Your task to perform on an android device: Empty the shopping cart on ebay.com. Image 0: 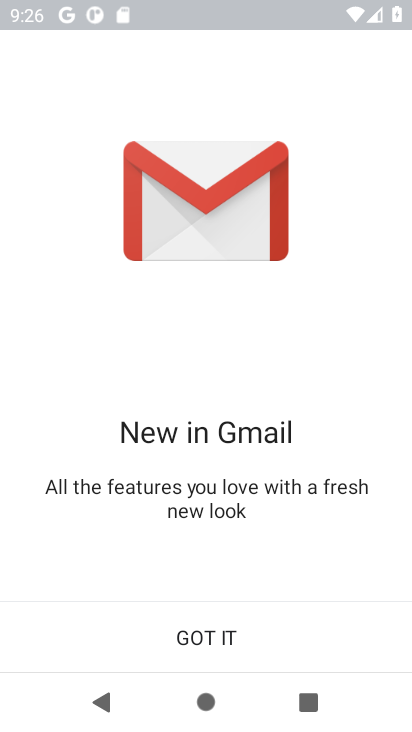
Step 0: press home button
Your task to perform on an android device: Empty the shopping cart on ebay.com. Image 1: 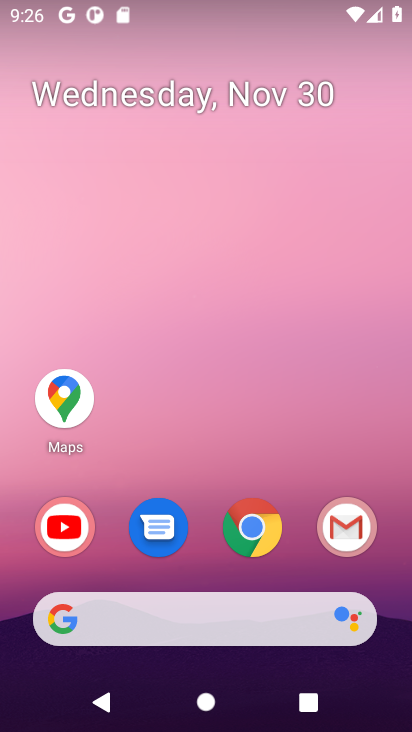
Step 1: click (253, 530)
Your task to perform on an android device: Empty the shopping cart on ebay.com. Image 2: 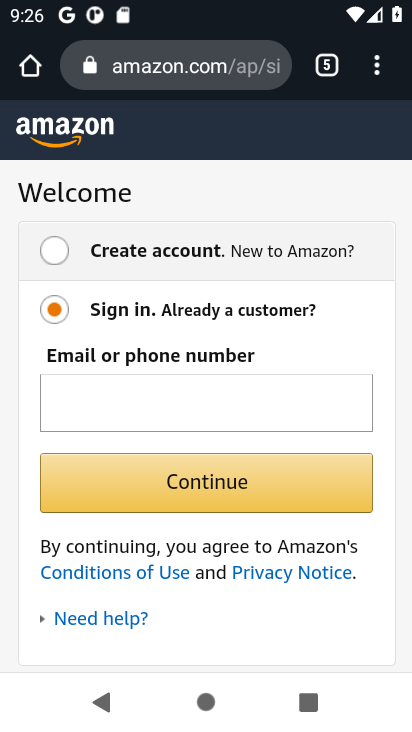
Step 2: click (187, 65)
Your task to perform on an android device: Empty the shopping cart on ebay.com. Image 3: 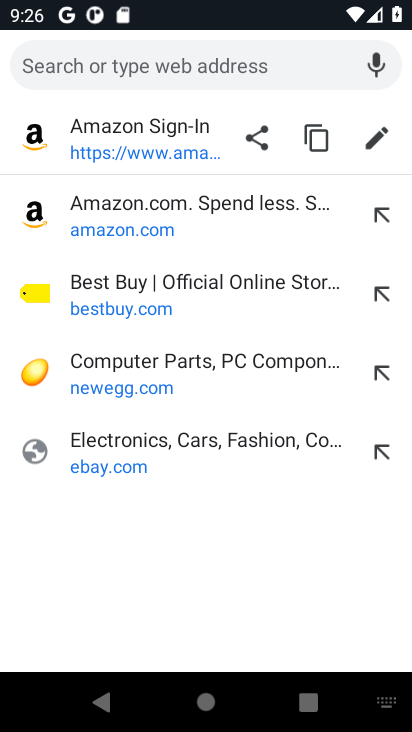
Step 3: click (141, 436)
Your task to perform on an android device: Empty the shopping cart on ebay.com. Image 4: 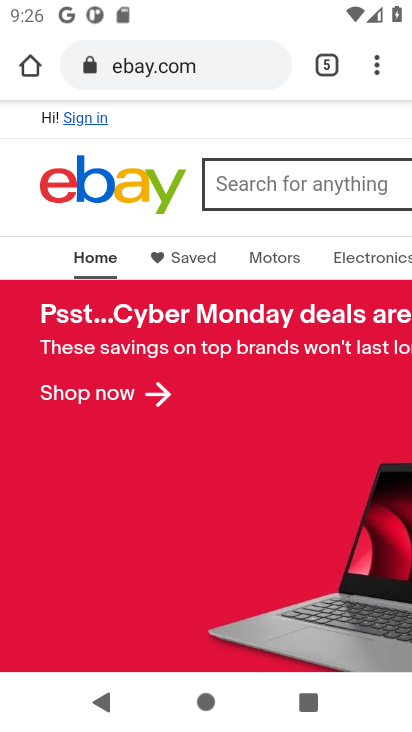
Step 4: drag from (350, 127) to (31, 174)
Your task to perform on an android device: Empty the shopping cart on ebay.com. Image 5: 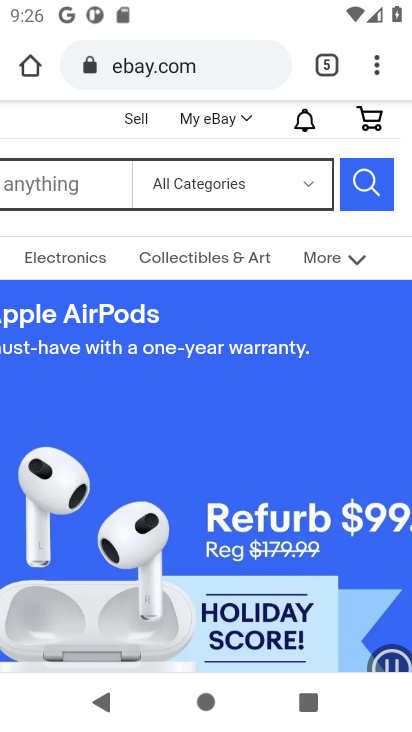
Step 5: click (377, 117)
Your task to perform on an android device: Empty the shopping cart on ebay.com. Image 6: 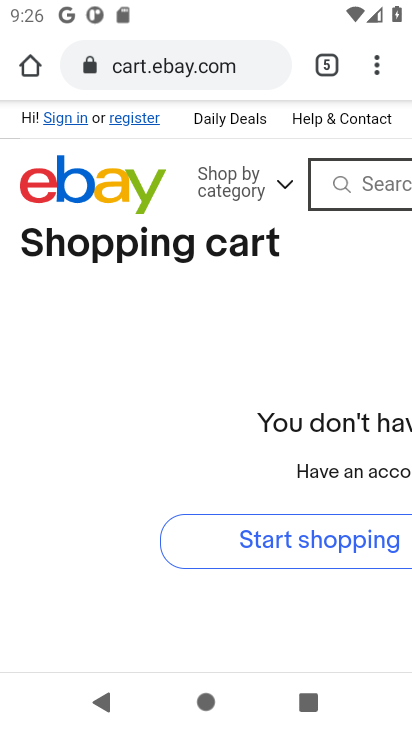
Step 6: task complete